Your task to perform on an android device: find snoozed emails in the gmail app Image 0: 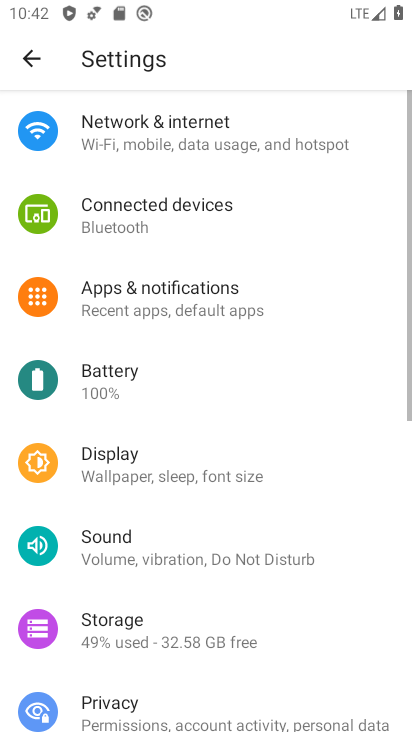
Step 0: press home button
Your task to perform on an android device: find snoozed emails in the gmail app Image 1: 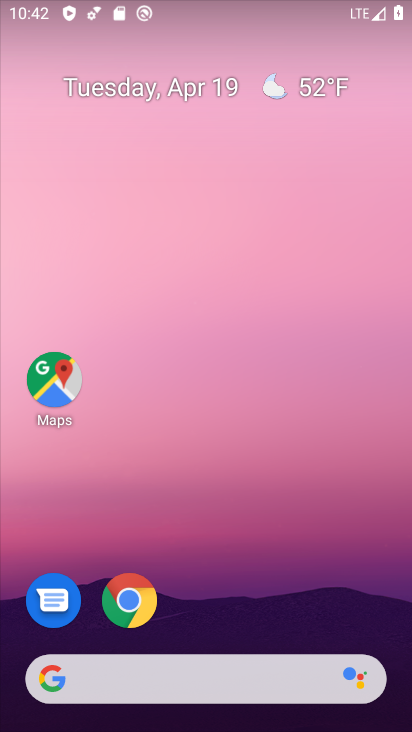
Step 1: drag from (214, 637) to (184, 152)
Your task to perform on an android device: find snoozed emails in the gmail app Image 2: 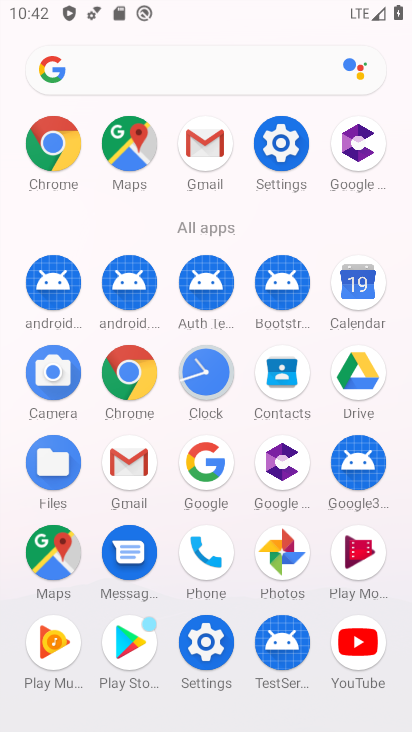
Step 2: click (120, 475)
Your task to perform on an android device: find snoozed emails in the gmail app Image 3: 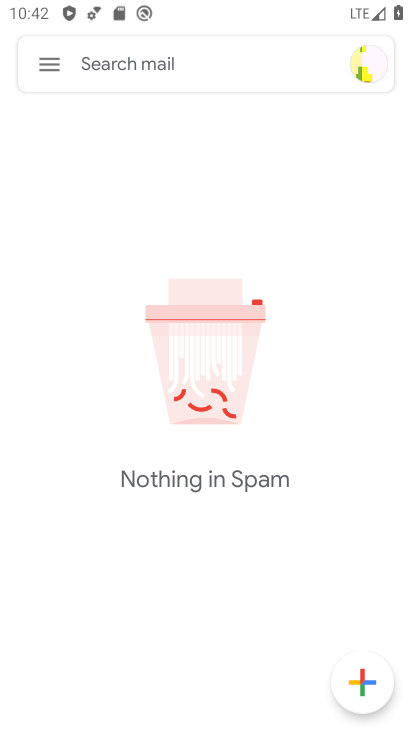
Step 3: click (51, 71)
Your task to perform on an android device: find snoozed emails in the gmail app Image 4: 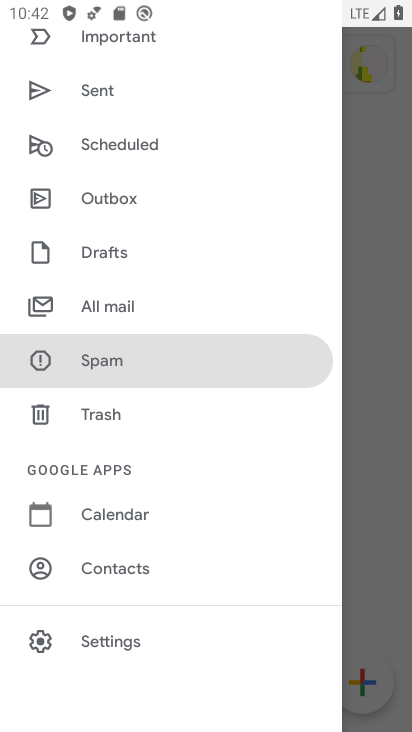
Step 4: drag from (149, 196) to (158, 353)
Your task to perform on an android device: find snoozed emails in the gmail app Image 5: 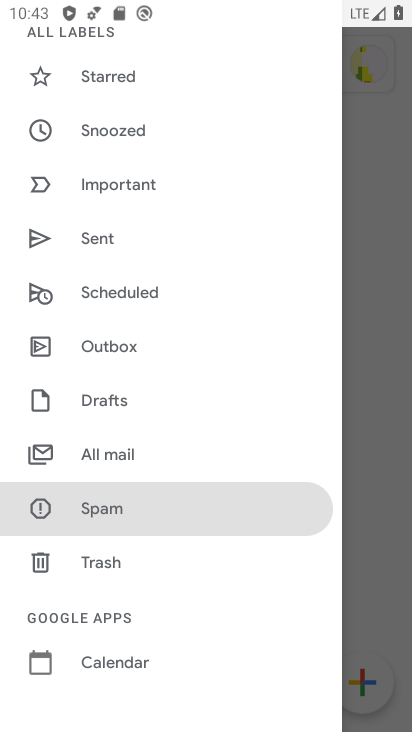
Step 5: click (93, 132)
Your task to perform on an android device: find snoozed emails in the gmail app Image 6: 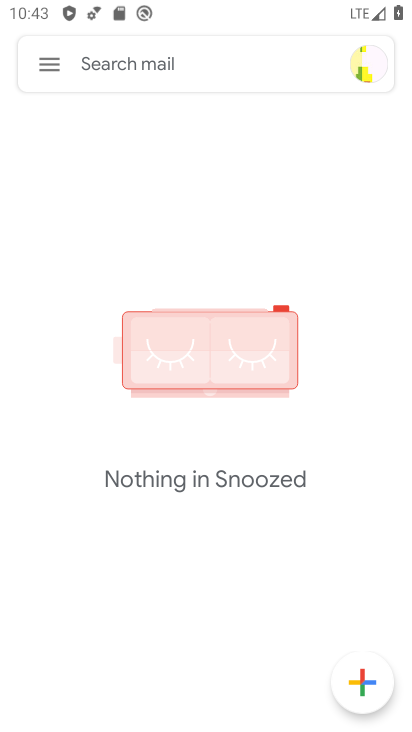
Step 6: task complete